Your task to perform on an android device: find snoozed emails in the gmail app Image 0: 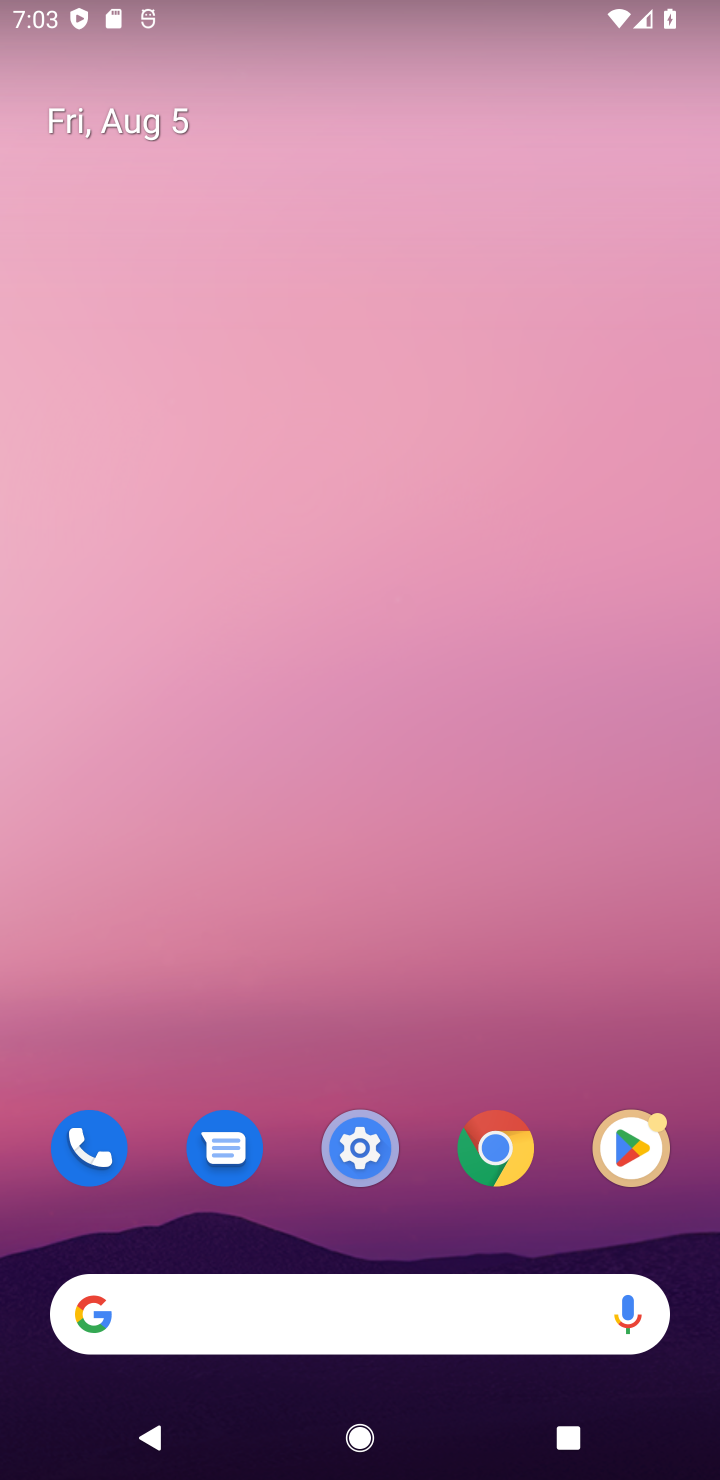
Step 0: drag from (403, 538) to (358, 0)
Your task to perform on an android device: find snoozed emails in the gmail app Image 1: 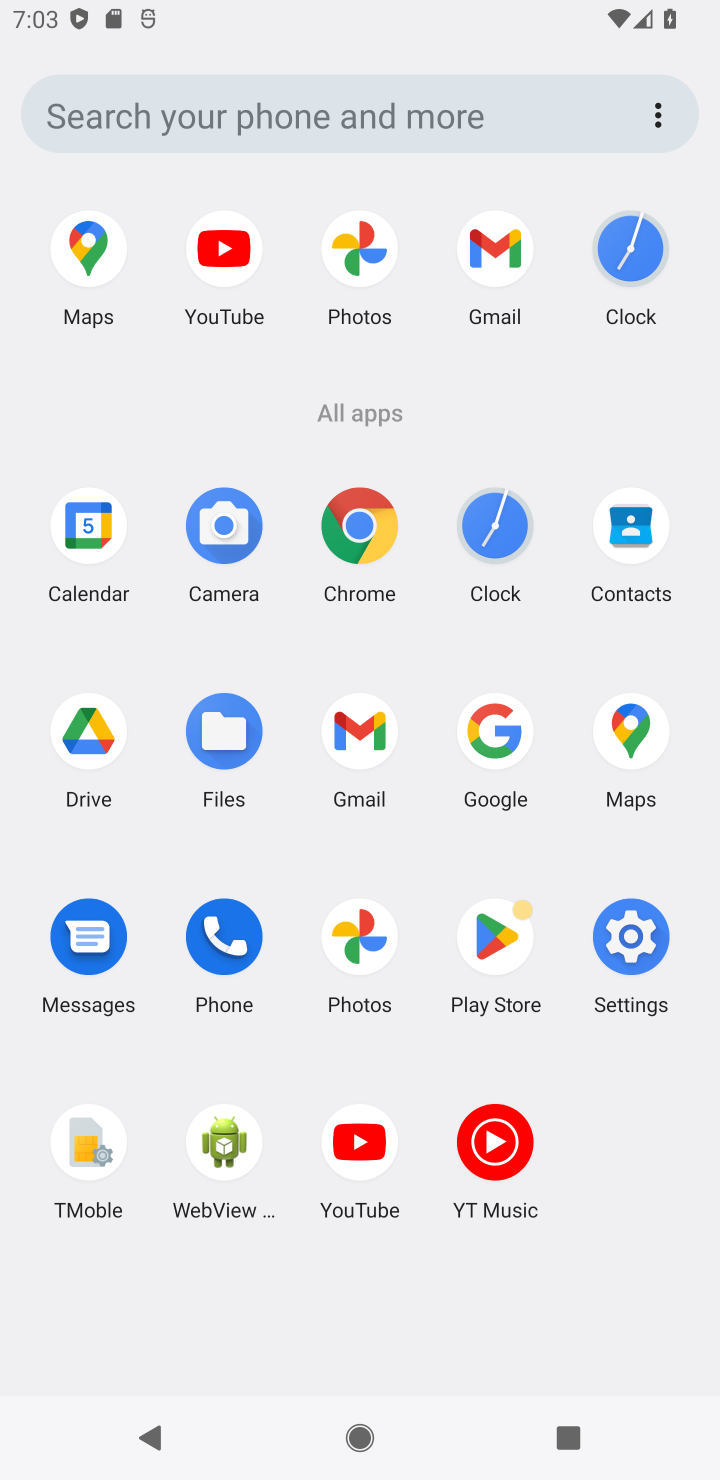
Step 1: click (483, 292)
Your task to perform on an android device: find snoozed emails in the gmail app Image 2: 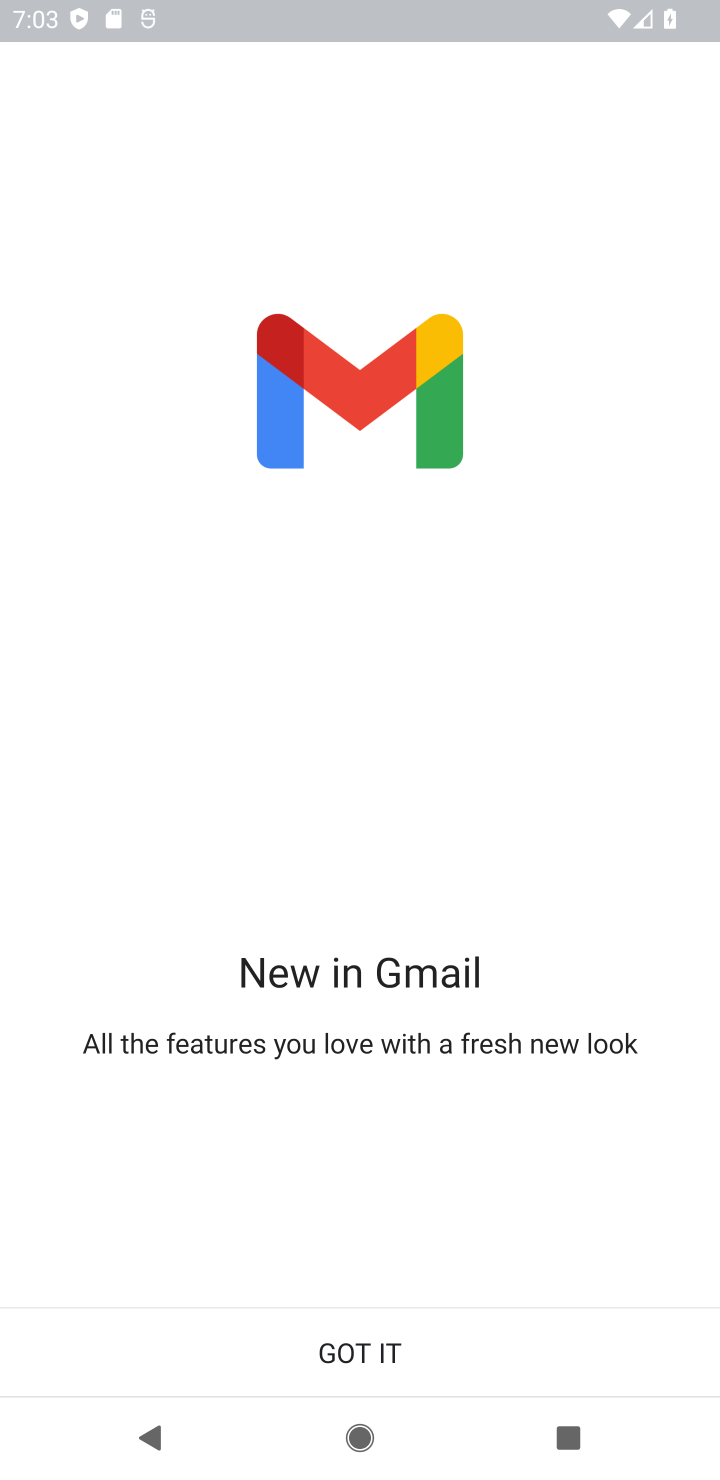
Step 2: click (364, 1334)
Your task to perform on an android device: find snoozed emails in the gmail app Image 3: 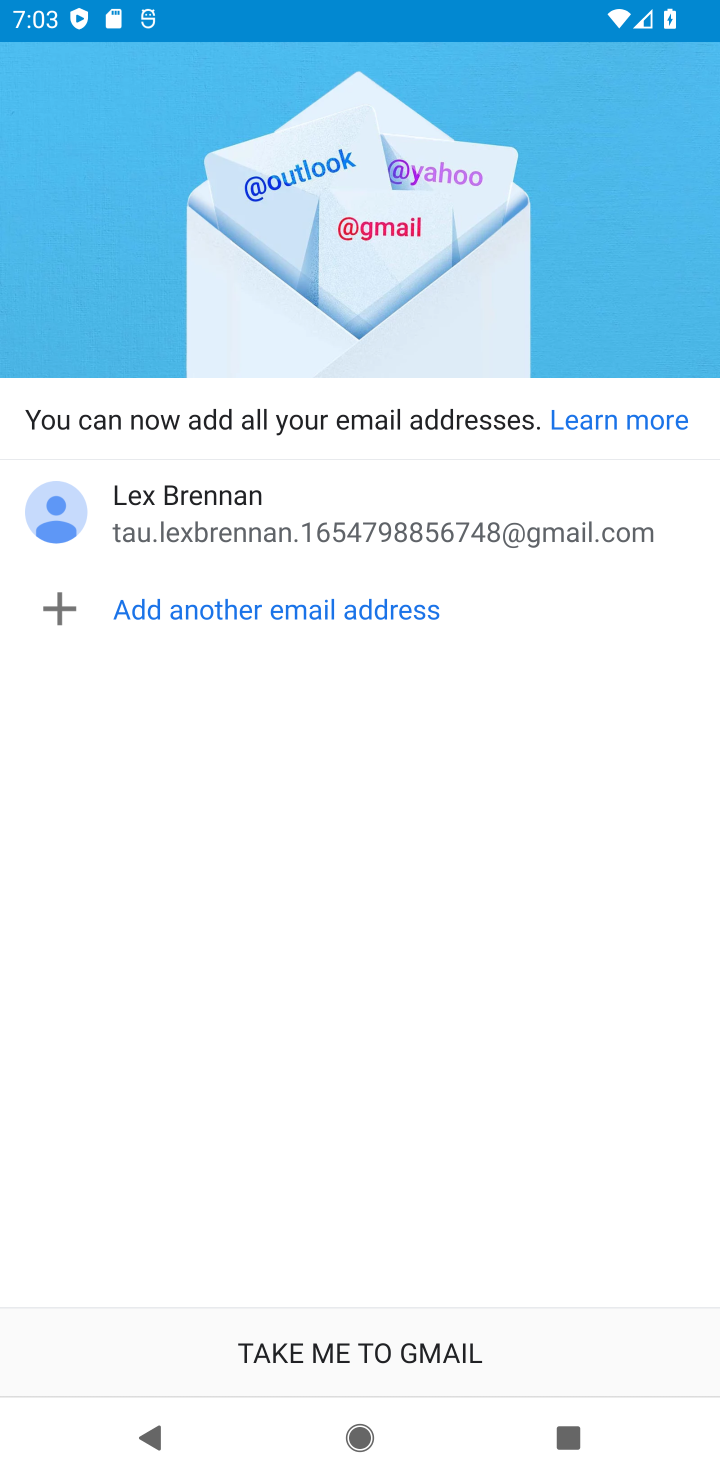
Step 3: click (311, 1327)
Your task to perform on an android device: find snoozed emails in the gmail app Image 4: 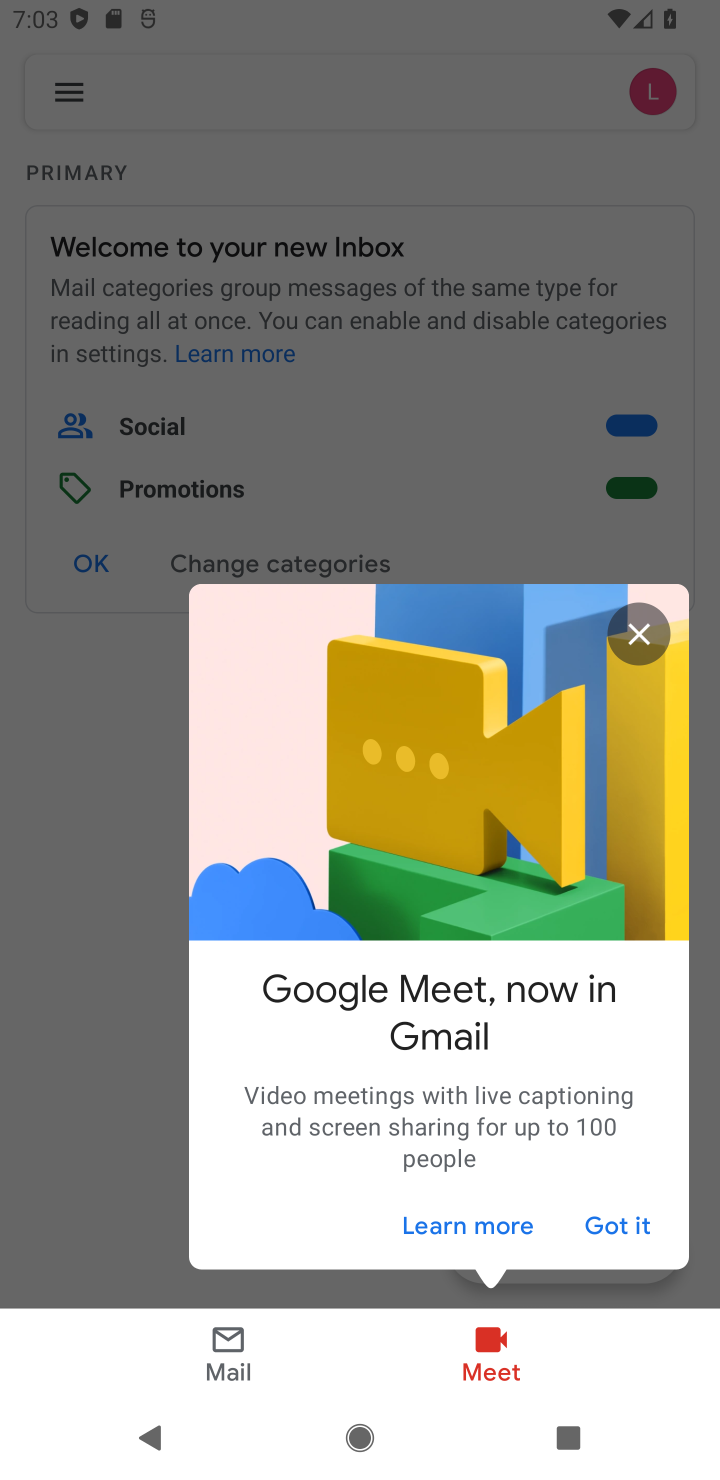
Step 4: click (642, 648)
Your task to perform on an android device: find snoozed emails in the gmail app Image 5: 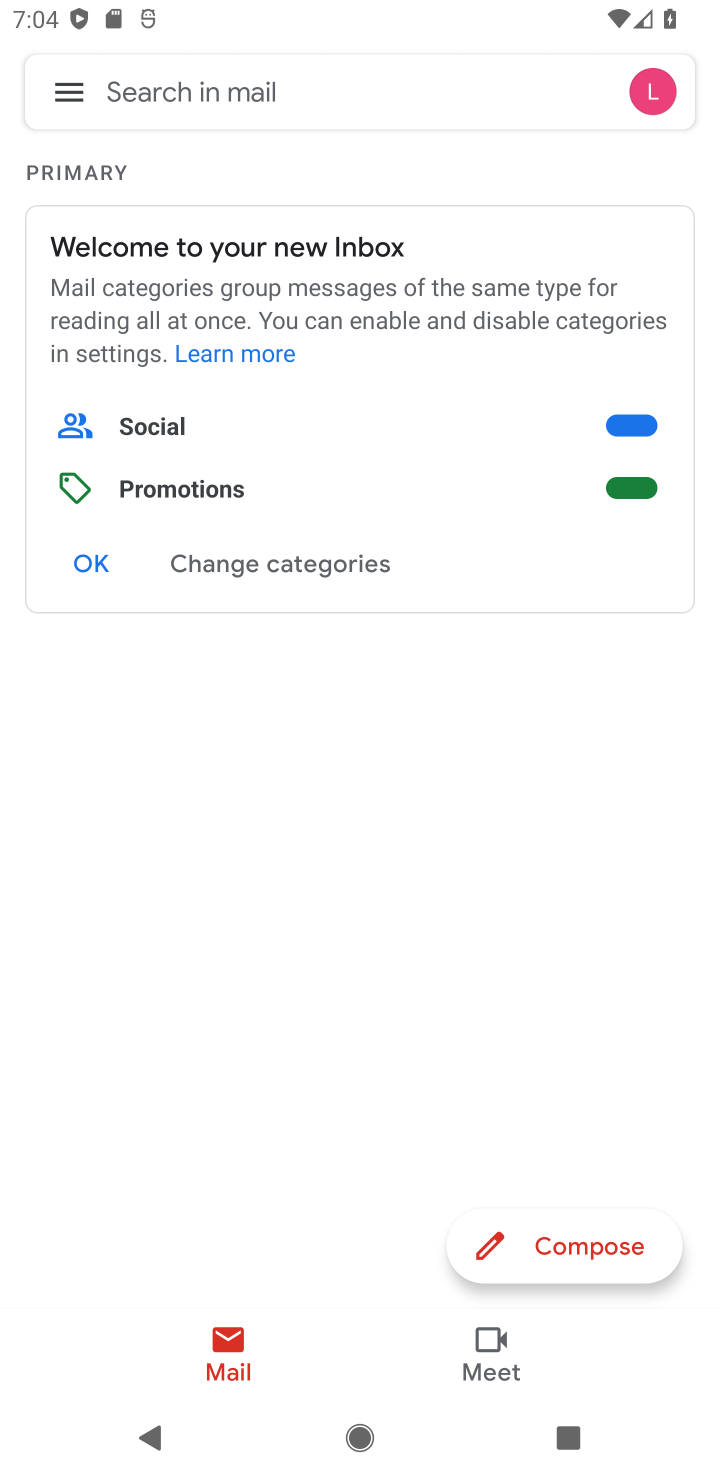
Step 5: click (45, 114)
Your task to perform on an android device: find snoozed emails in the gmail app Image 6: 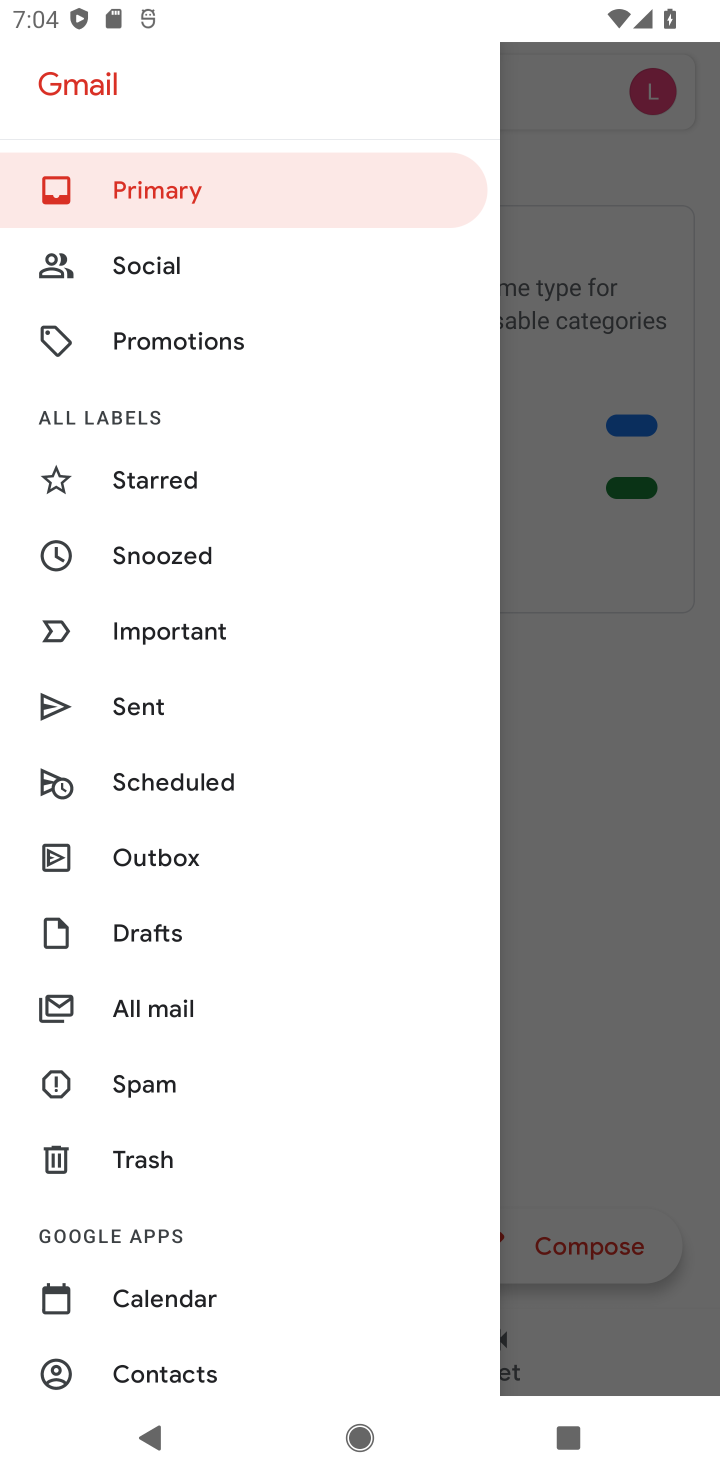
Step 6: click (137, 562)
Your task to perform on an android device: find snoozed emails in the gmail app Image 7: 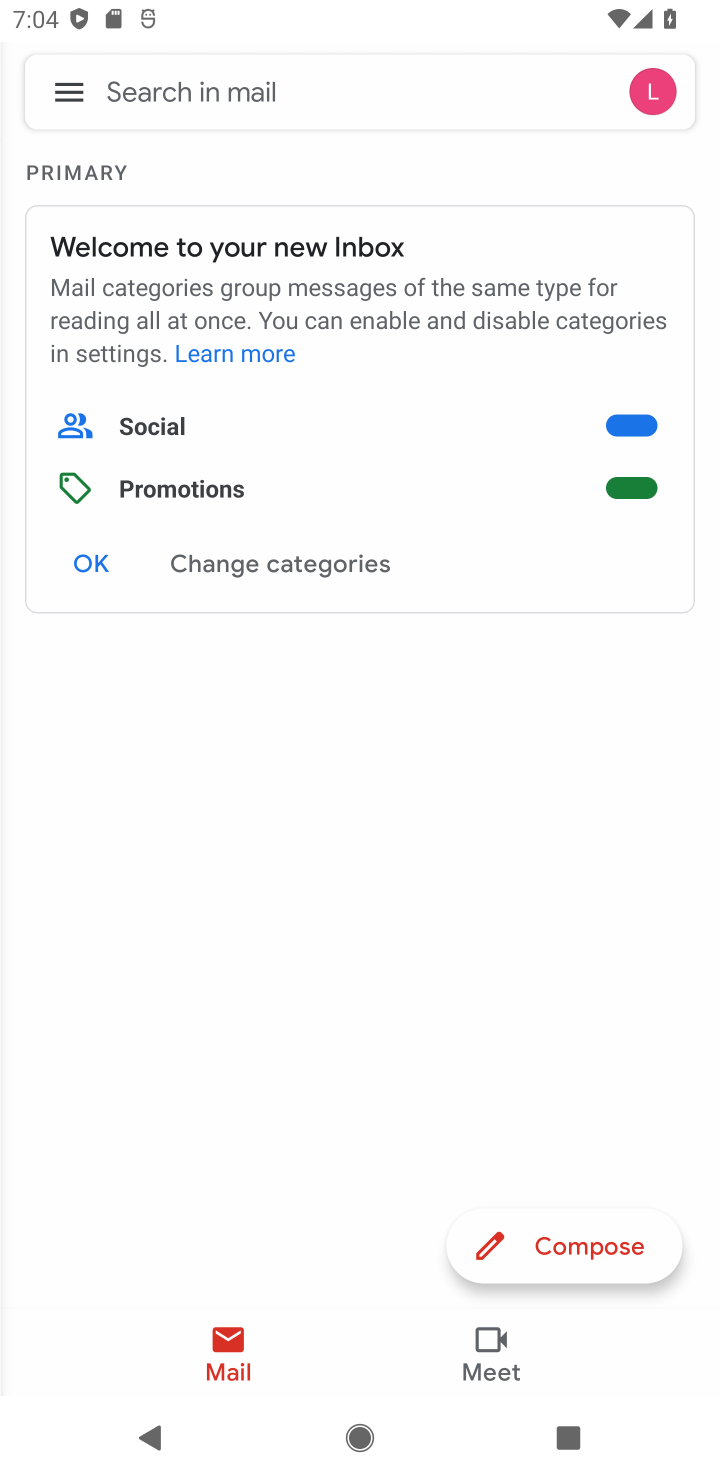
Step 7: task complete